Your task to perform on an android device: When is my next meeting? Image 0: 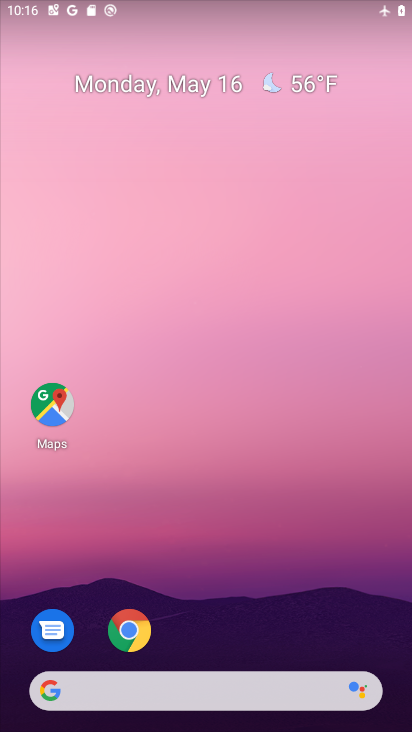
Step 0: drag from (296, 537) to (283, 95)
Your task to perform on an android device: When is my next meeting? Image 1: 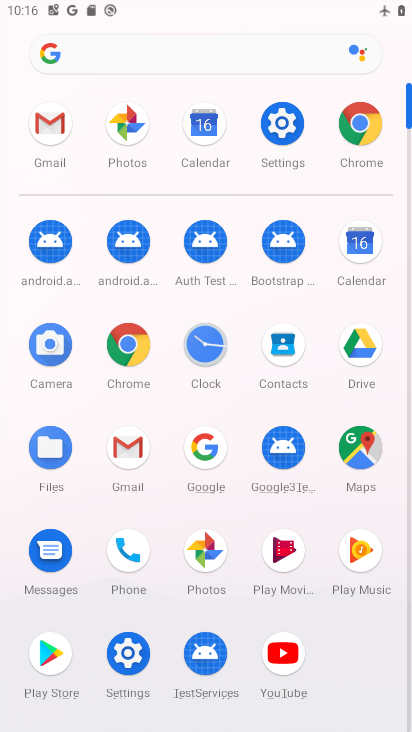
Step 1: click (196, 119)
Your task to perform on an android device: When is my next meeting? Image 2: 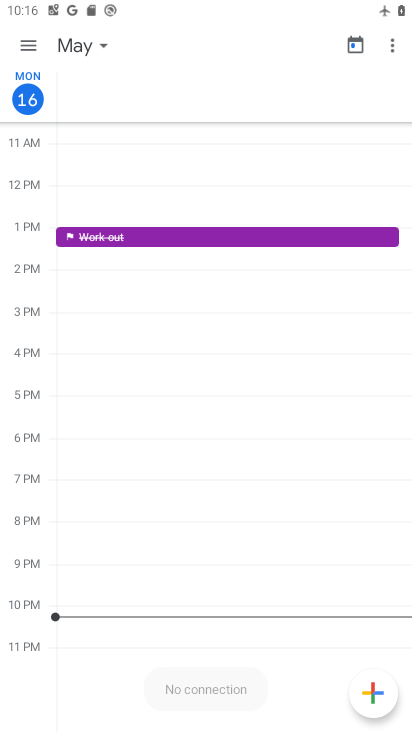
Step 2: click (32, 42)
Your task to perform on an android device: When is my next meeting? Image 3: 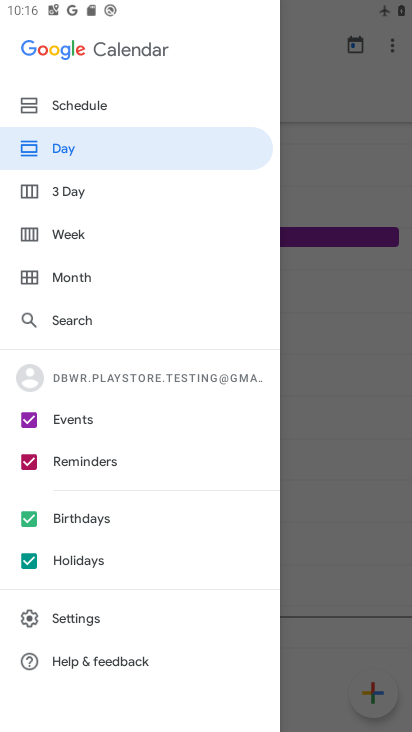
Step 3: click (71, 92)
Your task to perform on an android device: When is my next meeting? Image 4: 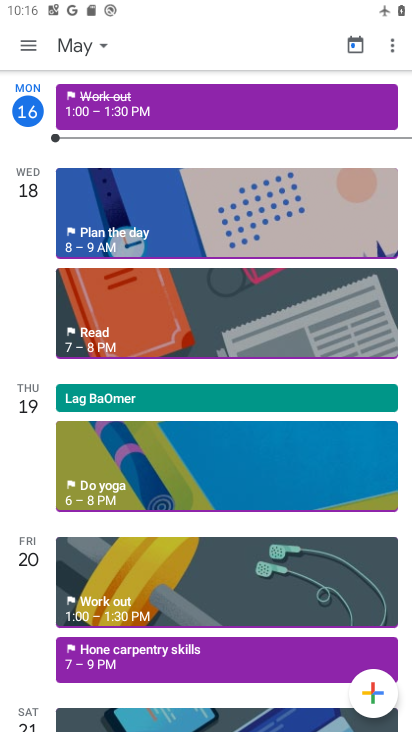
Step 4: task complete